Your task to perform on an android device: turn pop-ups on in chrome Image 0: 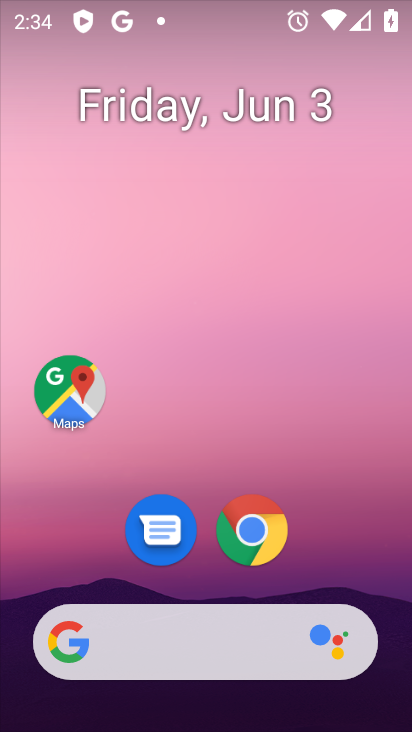
Step 0: click (269, 536)
Your task to perform on an android device: turn pop-ups on in chrome Image 1: 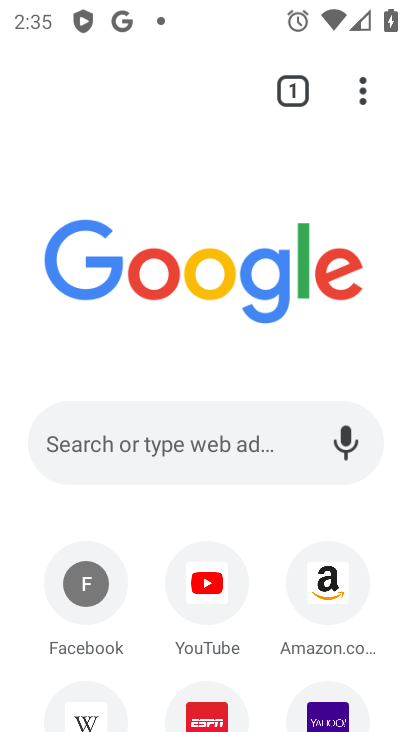
Step 1: click (369, 97)
Your task to perform on an android device: turn pop-ups on in chrome Image 2: 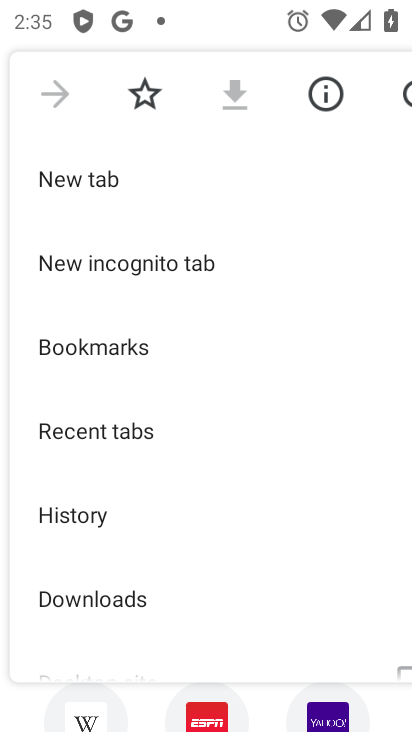
Step 2: drag from (164, 596) to (147, 248)
Your task to perform on an android device: turn pop-ups on in chrome Image 3: 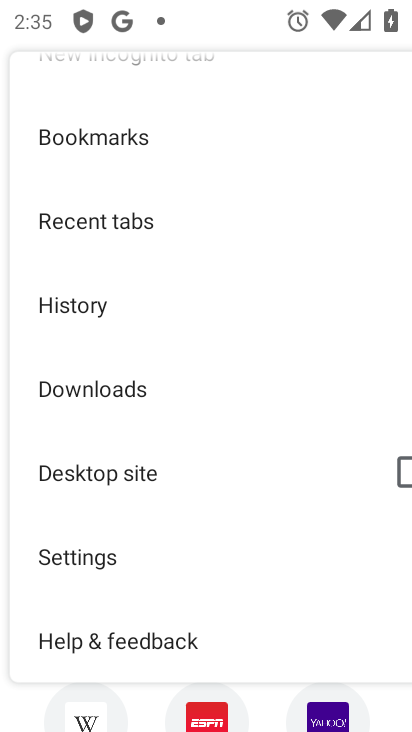
Step 3: click (107, 571)
Your task to perform on an android device: turn pop-ups on in chrome Image 4: 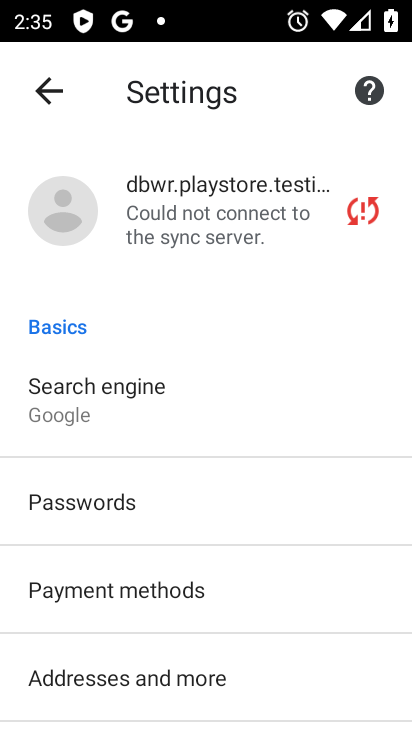
Step 4: drag from (362, 667) to (380, 227)
Your task to perform on an android device: turn pop-ups on in chrome Image 5: 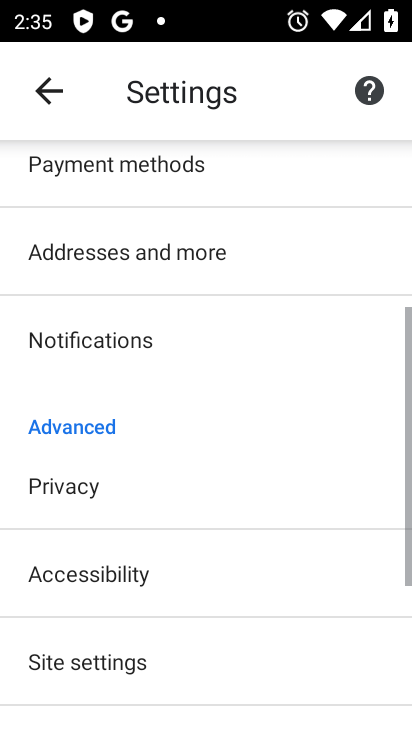
Step 5: click (134, 656)
Your task to perform on an android device: turn pop-ups on in chrome Image 6: 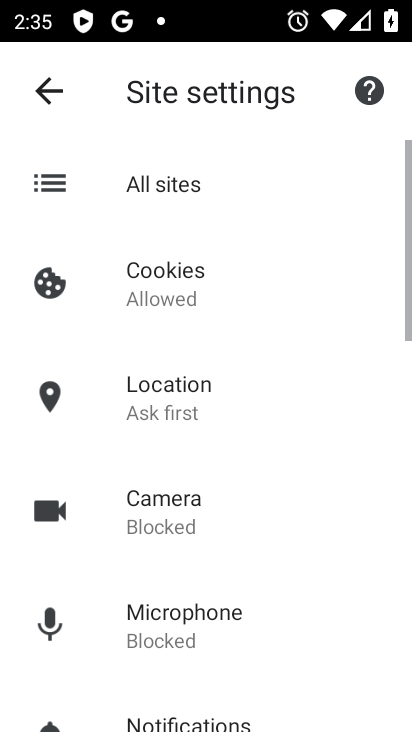
Step 6: drag from (260, 654) to (271, 210)
Your task to perform on an android device: turn pop-ups on in chrome Image 7: 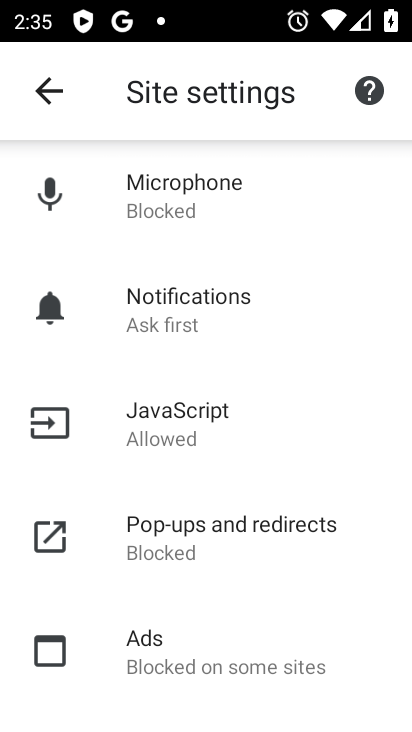
Step 7: click (166, 545)
Your task to perform on an android device: turn pop-ups on in chrome Image 8: 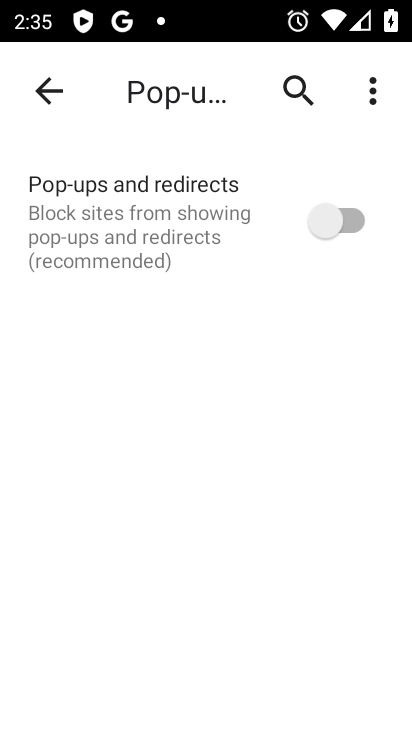
Step 8: click (333, 222)
Your task to perform on an android device: turn pop-ups on in chrome Image 9: 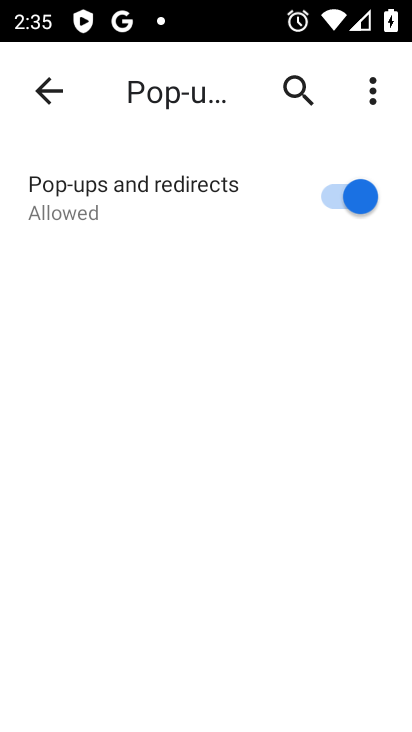
Step 9: task complete